Your task to perform on an android device: set the timer Image 0: 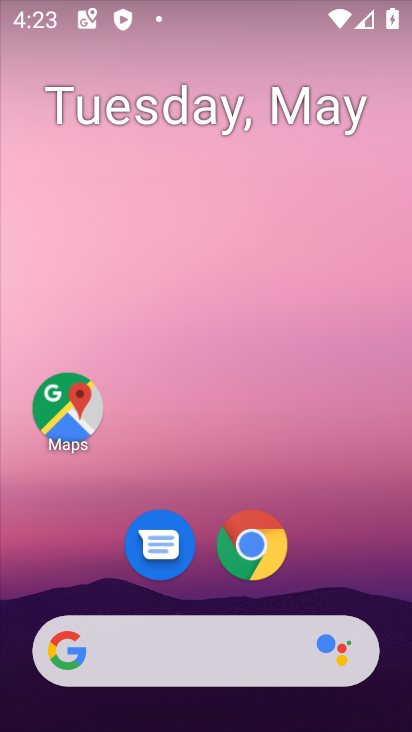
Step 0: drag from (330, 577) to (227, 113)
Your task to perform on an android device: set the timer Image 1: 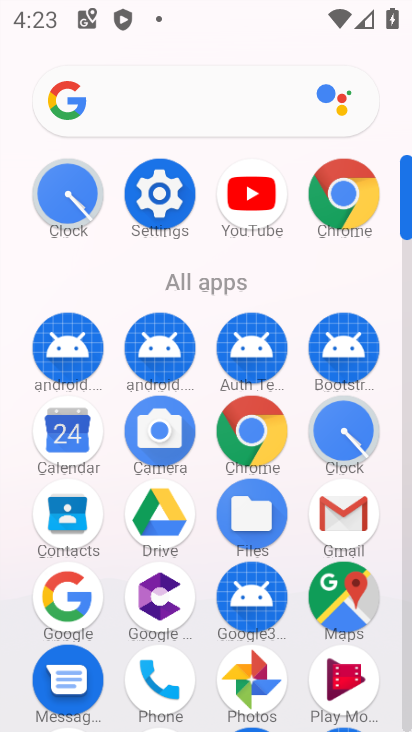
Step 1: click (68, 194)
Your task to perform on an android device: set the timer Image 2: 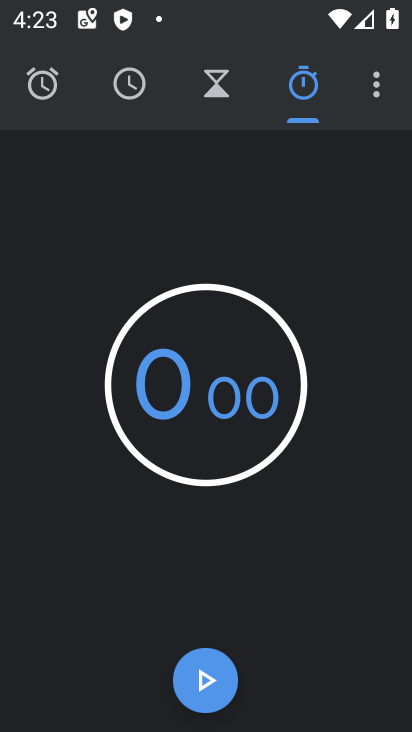
Step 2: click (215, 80)
Your task to perform on an android device: set the timer Image 3: 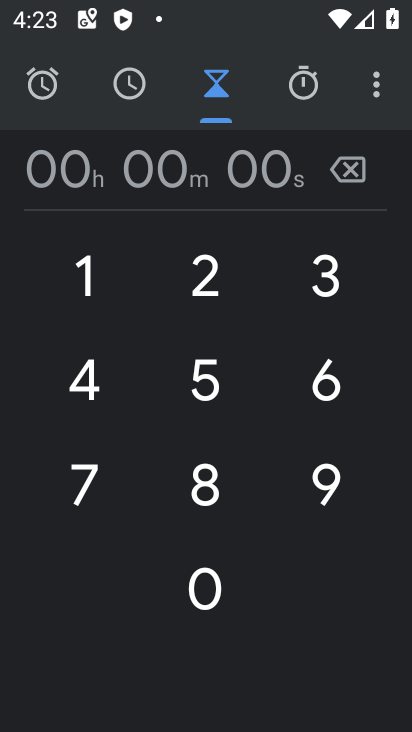
Step 3: type "1234"
Your task to perform on an android device: set the timer Image 4: 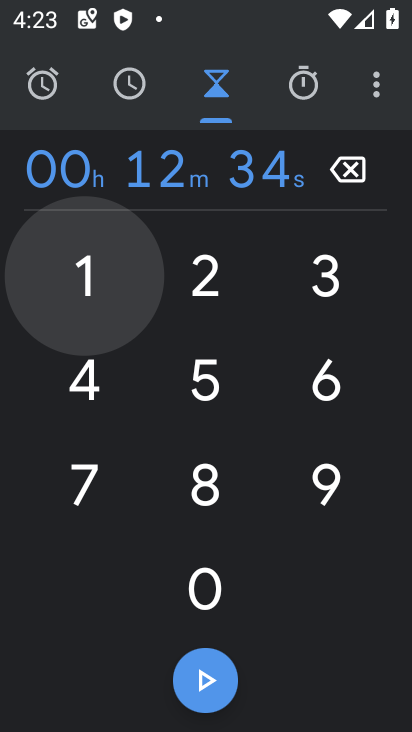
Step 4: click (208, 675)
Your task to perform on an android device: set the timer Image 5: 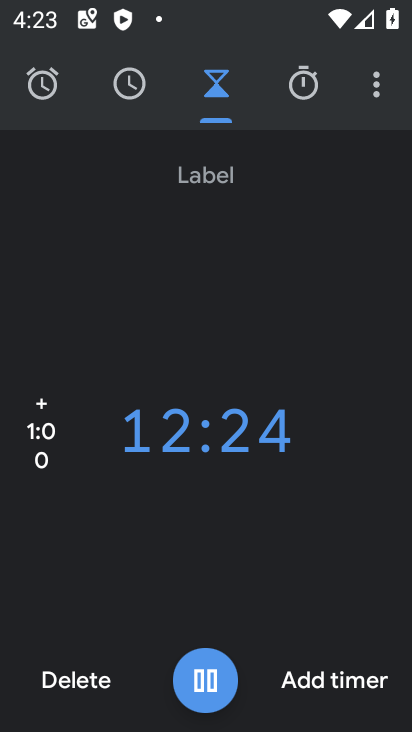
Step 5: click (210, 681)
Your task to perform on an android device: set the timer Image 6: 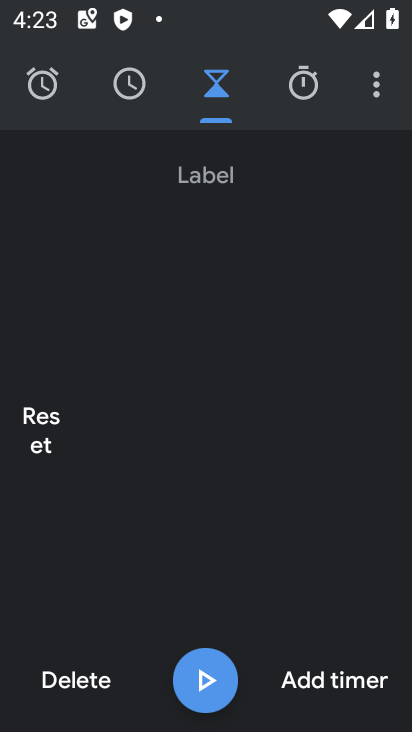
Step 6: task complete